Your task to perform on an android device: toggle javascript in the chrome app Image 0: 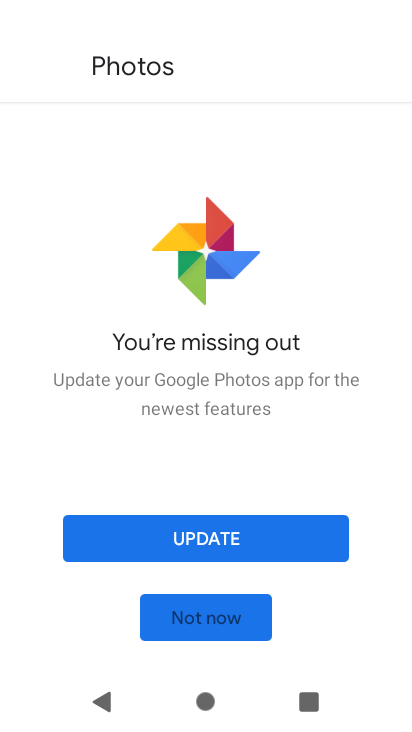
Step 0: press home button
Your task to perform on an android device: toggle javascript in the chrome app Image 1: 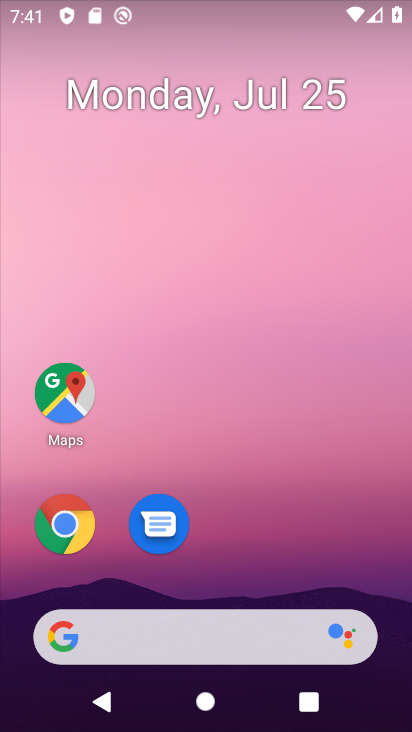
Step 1: click (66, 530)
Your task to perform on an android device: toggle javascript in the chrome app Image 2: 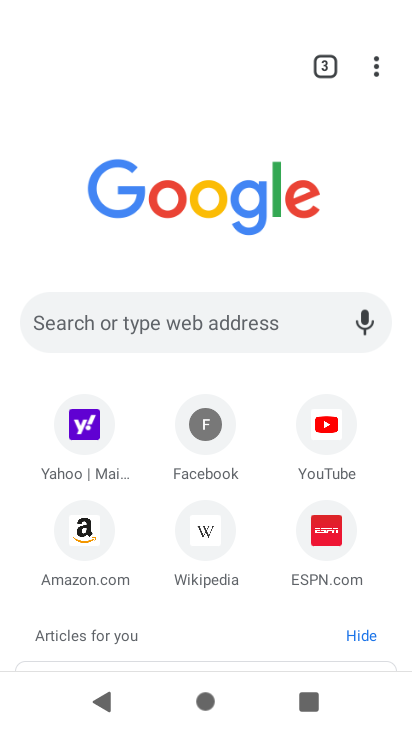
Step 2: click (375, 67)
Your task to perform on an android device: toggle javascript in the chrome app Image 3: 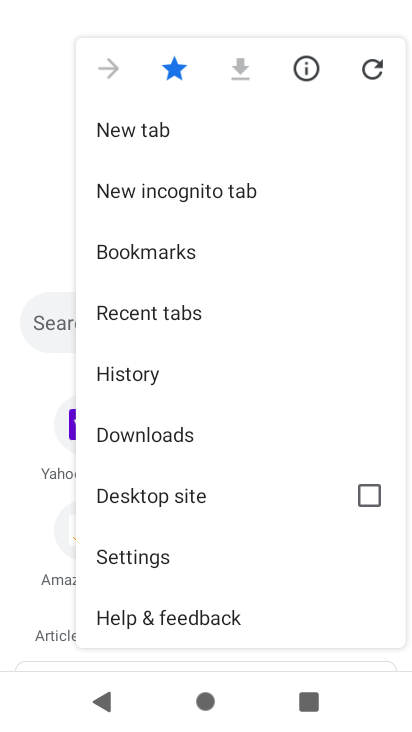
Step 3: click (158, 548)
Your task to perform on an android device: toggle javascript in the chrome app Image 4: 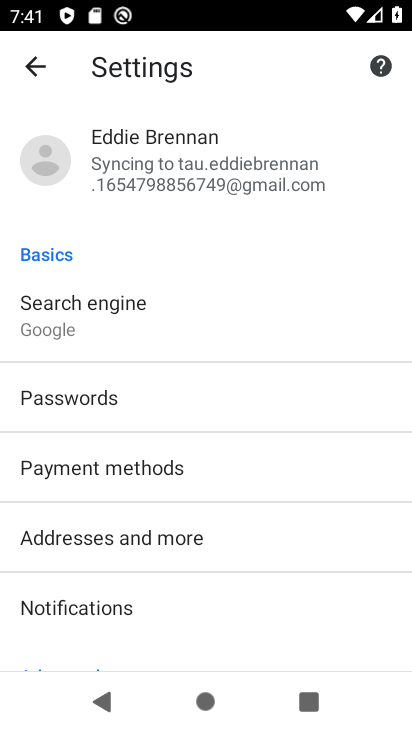
Step 4: drag from (241, 549) to (281, 336)
Your task to perform on an android device: toggle javascript in the chrome app Image 5: 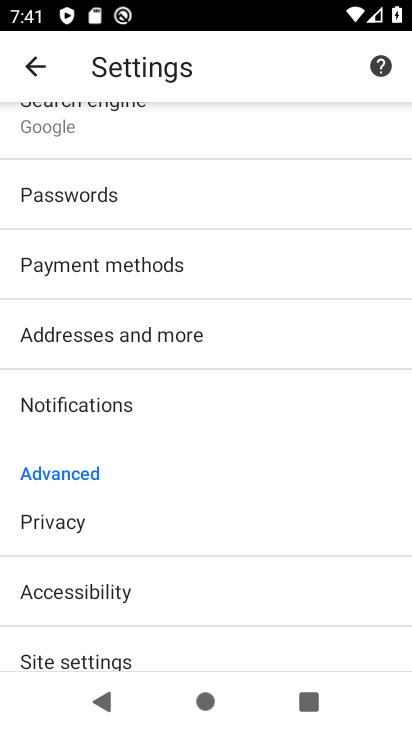
Step 5: drag from (231, 483) to (254, 213)
Your task to perform on an android device: toggle javascript in the chrome app Image 6: 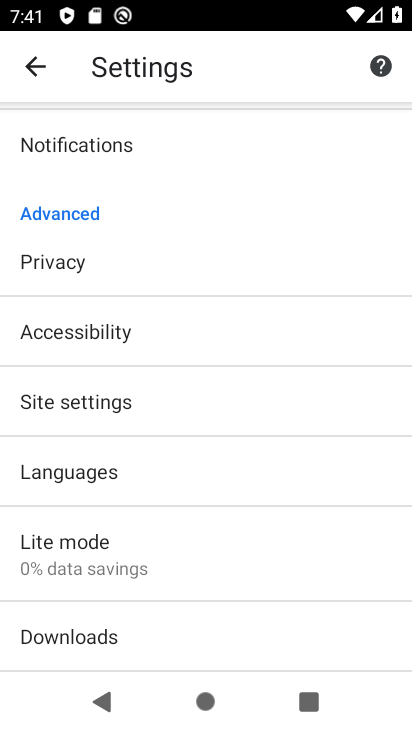
Step 6: click (109, 385)
Your task to perform on an android device: toggle javascript in the chrome app Image 7: 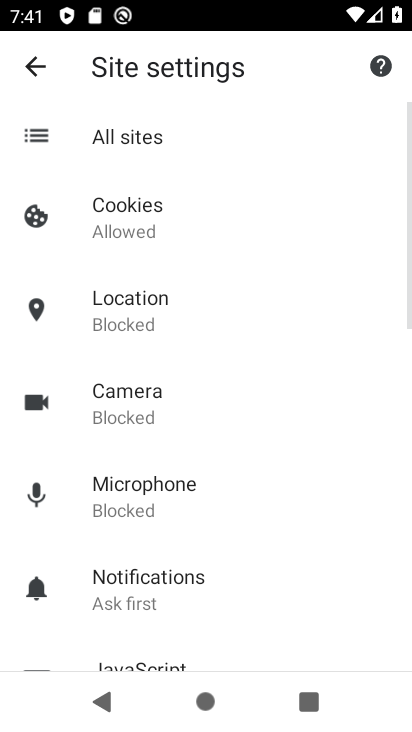
Step 7: drag from (210, 499) to (262, 236)
Your task to perform on an android device: toggle javascript in the chrome app Image 8: 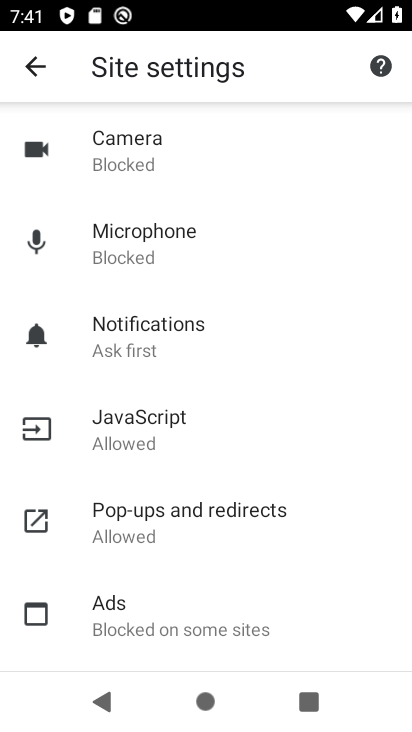
Step 8: click (180, 416)
Your task to perform on an android device: toggle javascript in the chrome app Image 9: 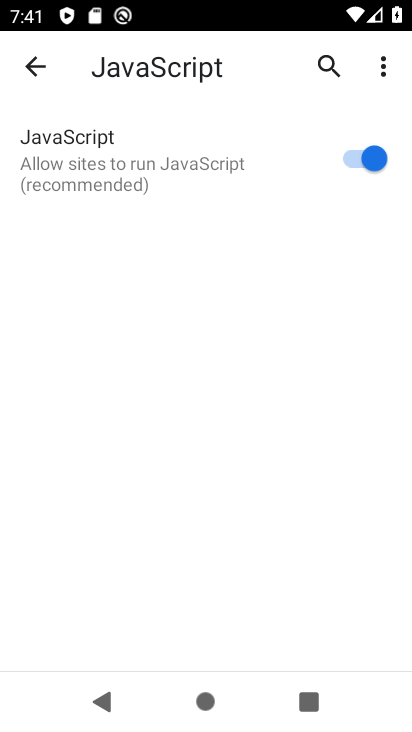
Step 9: click (358, 158)
Your task to perform on an android device: toggle javascript in the chrome app Image 10: 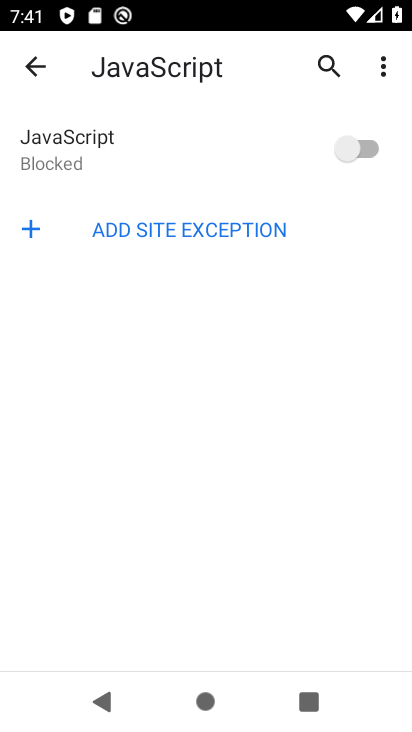
Step 10: task complete